Your task to perform on an android device: Go to network settings Image 0: 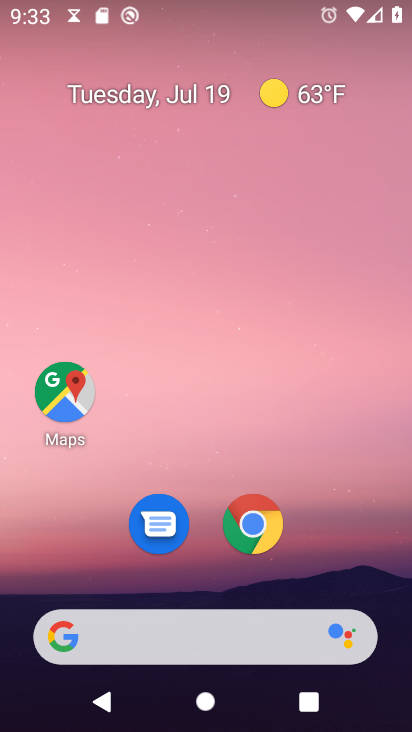
Step 0: drag from (225, 623) to (322, 139)
Your task to perform on an android device: Go to network settings Image 1: 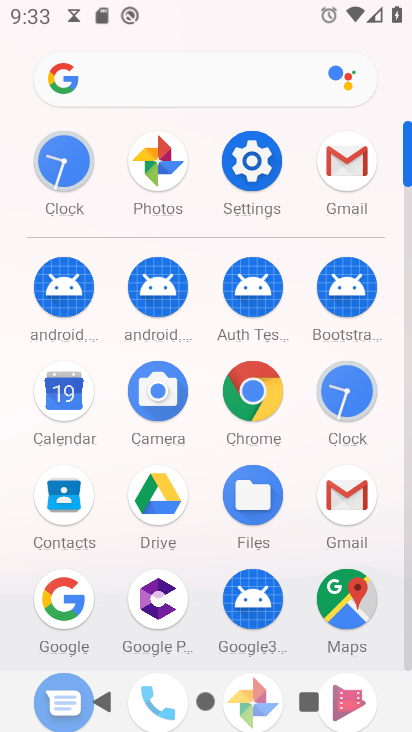
Step 1: click (260, 171)
Your task to perform on an android device: Go to network settings Image 2: 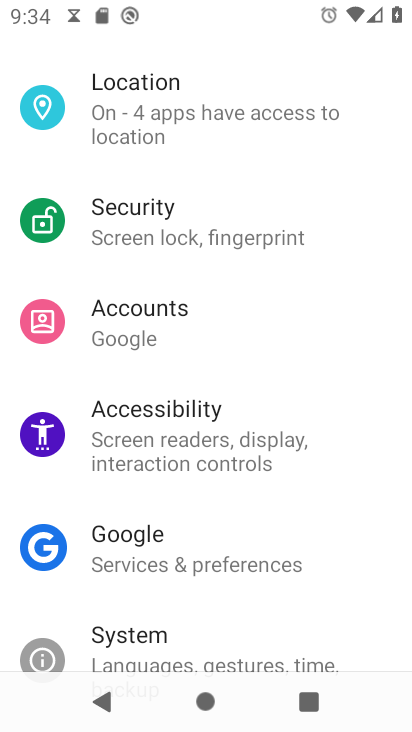
Step 2: drag from (250, 138) to (191, 590)
Your task to perform on an android device: Go to network settings Image 3: 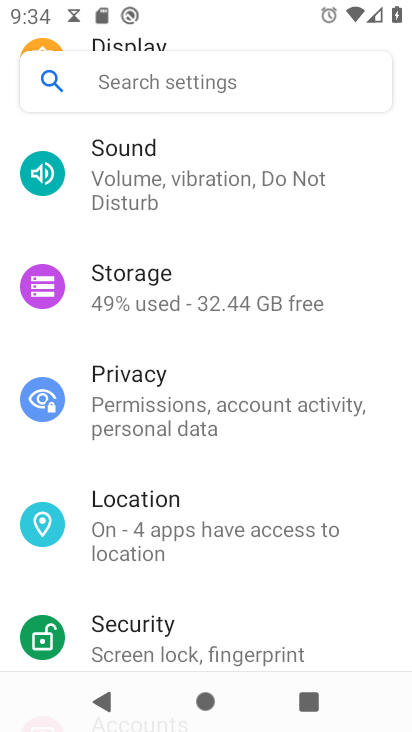
Step 3: drag from (274, 142) to (238, 595)
Your task to perform on an android device: Go to network settings Image 4: 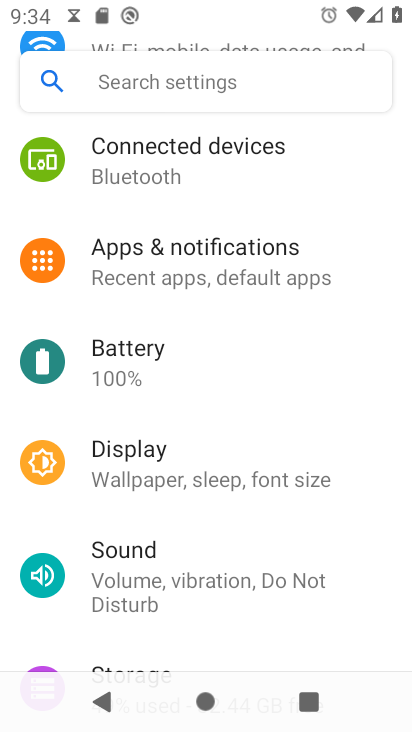
Step 4: drag from (225, 192) to (158, 694)
Your task to perform on an android device: Go to network settings Image 5: 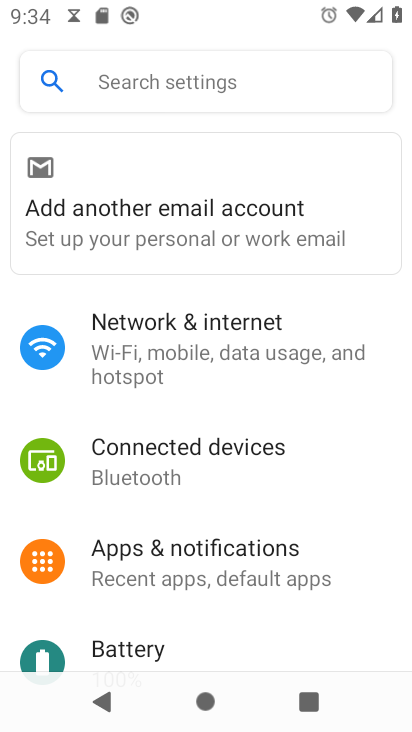
Step 5: click (200, 328)
Your task to perform on an android device: Go to network settings Image 6: 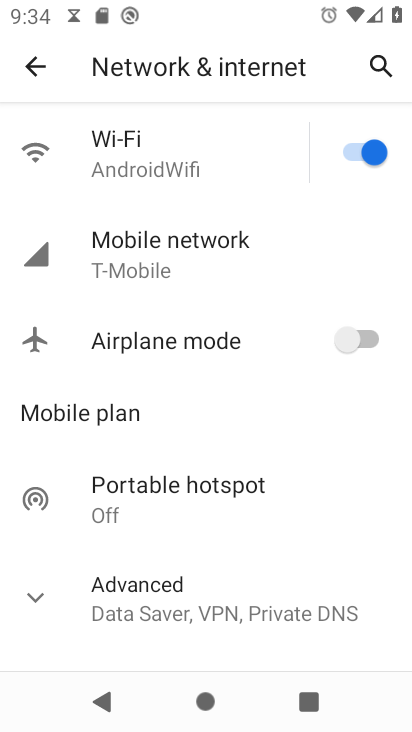
Step 6: click (127, 157)
Your task to perform on an android device: Go to network settings Image 7: 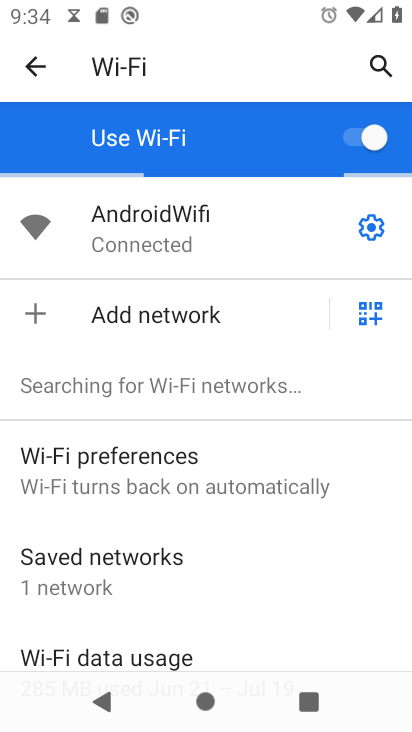
Step 7: task complete